Your task to perform on an android device: Go to CNN.com Image 0: 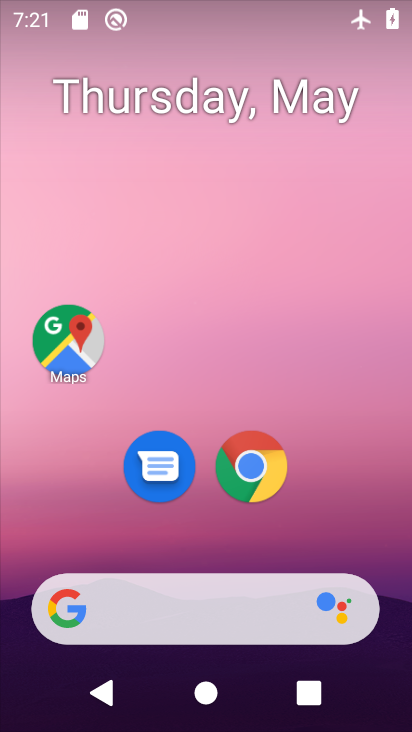
Step 0: click (195, 618)
Your task to perform on an android device: Go to CNN.com Image 1: 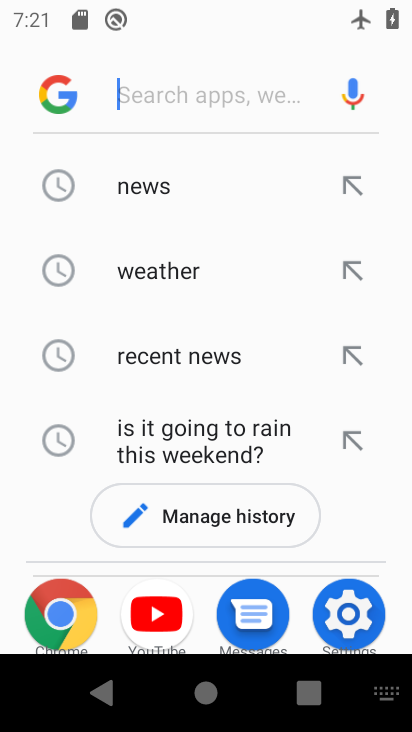
Step 1: type "cnn.com"
Your task to perform on an android device: Go to CNN.com Image 2: 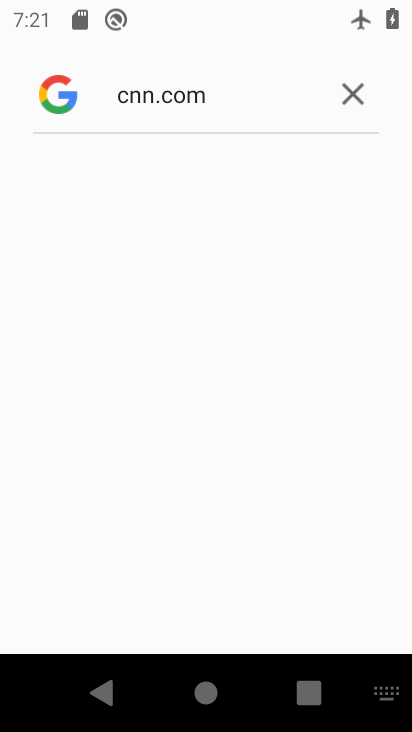
Step 2: task complete